Your task to perform on an android device: turn off priority inbox in the gmail app Image 0: 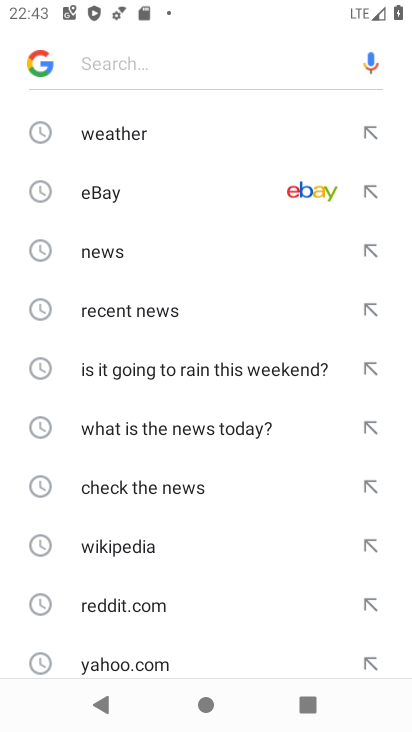
Step 0: drag from (272, 132) to (280, 75)
Your task to perform on an android device: turn off priority inbox in the gmail app Image 1: 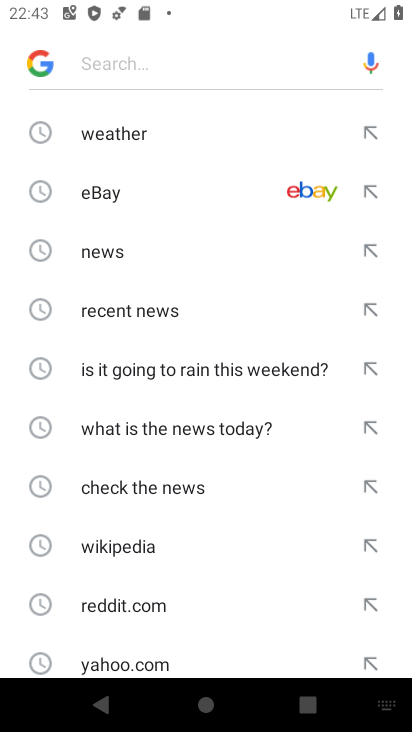
Step 1: press home button
Your task to perform on an android device: turn off priority inbox in the gmail app Image 2: 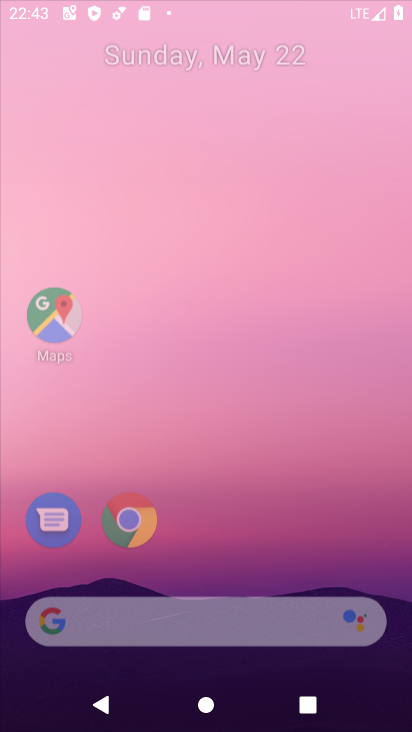
Step 2: drag from (258, 586) to (313, 82)
Your task to perform on an android device: turn off priority inbox in the gmail app Image 3: 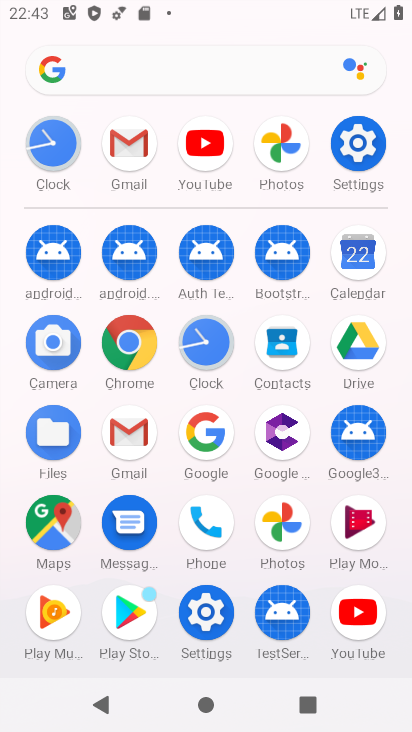
Step 3: click (115, 428)
Your task to perform on an android device: turn off priority inbox in the gmail app Image 4: 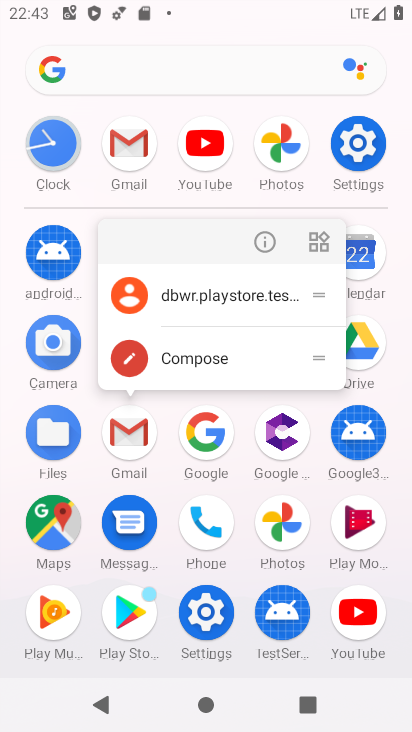
Step 4: click (271, 231)
Your task to perform on an android device: turn off priority inbox in the gmail app Image 5: 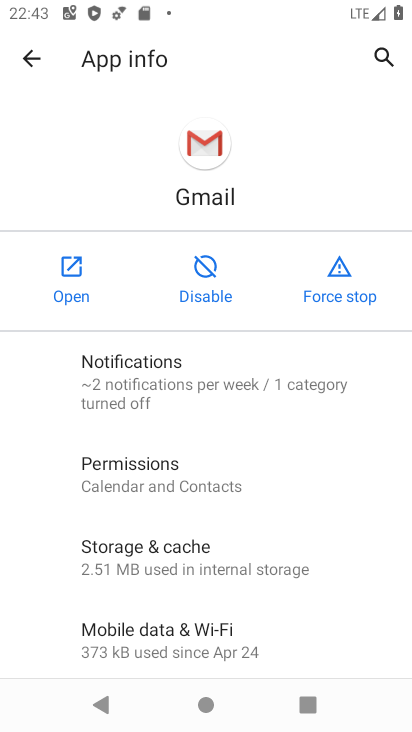
Step 5: click (61, 257)
Your task to perform on an android device: turn off priority inbox in the gmail app Image 6: 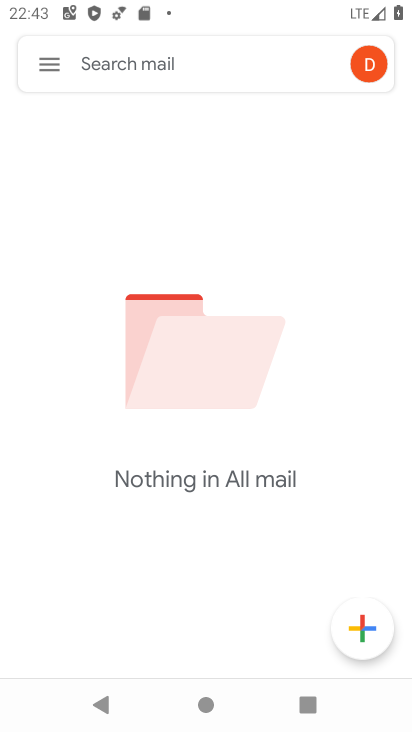
Step 6: click (370, 66)
Your task to perform on an android device: turn off priority inbox in the gmail app Image 7: 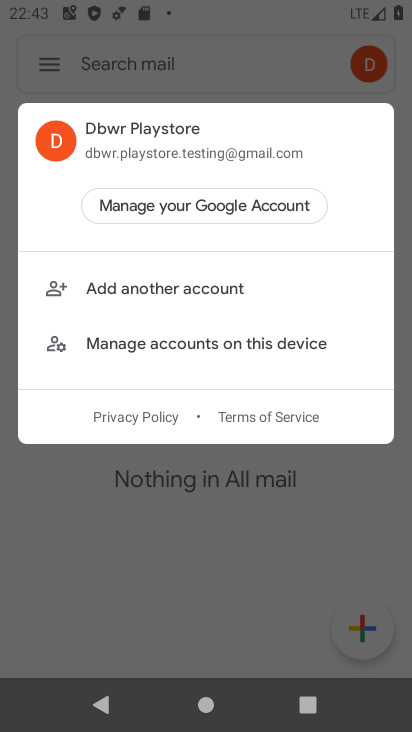
Step 7: click (215, 543)
Your task to perform on an android device: turn off priority inbox in the gmail app Image 8: 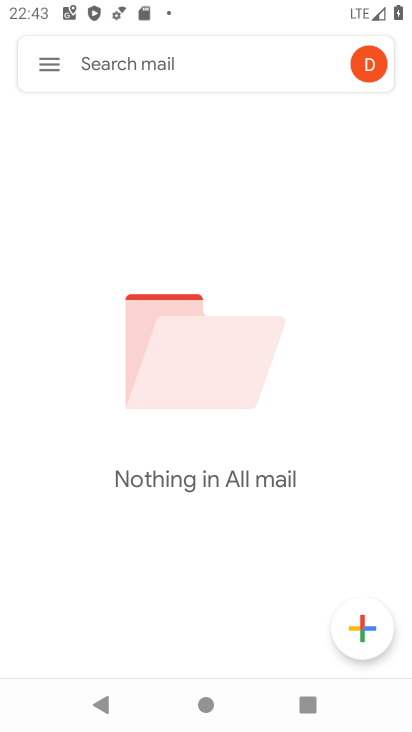
Step 8: click (60, 72)
Your task to perform on an android device: turn off priority inbox in the gmail app Image 9: 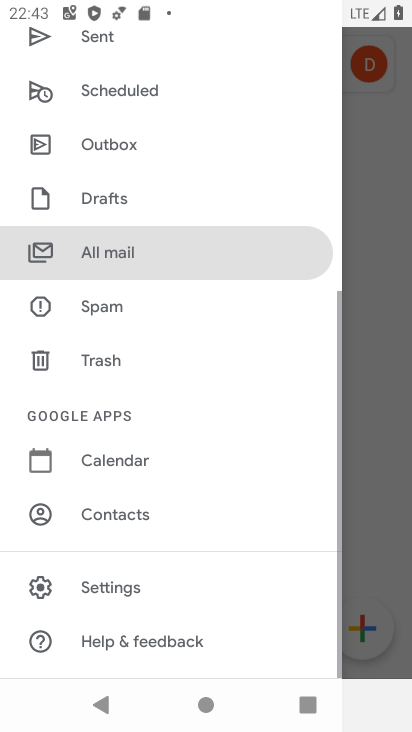
Step 9: drag from (210, 566) to (262, 92)
Your task to perform on an android device: turn off priority inbox in the gmail app Image 10: 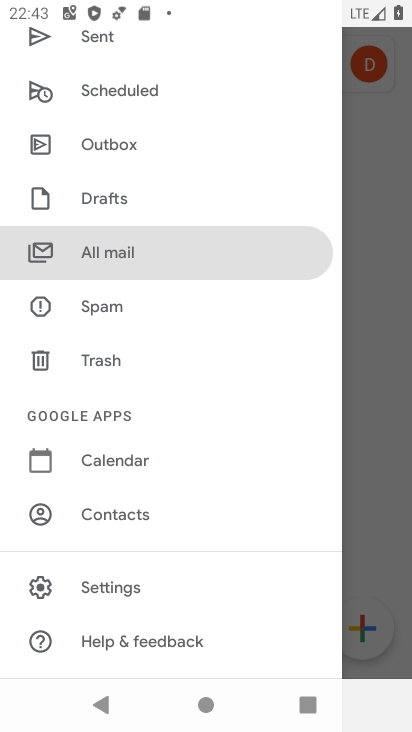
Step 10: click (113, 587)
Your task to perform on an android device: turn off priority inbox in the gmail app Image 11: 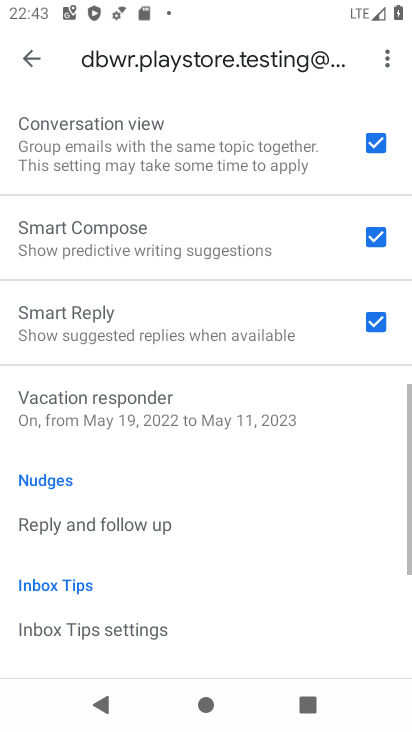
Step 11: drag from (108, 579) to (179, 147)
Your task to perform on an android device: turn off priority inbox in the gmail app Image 12: 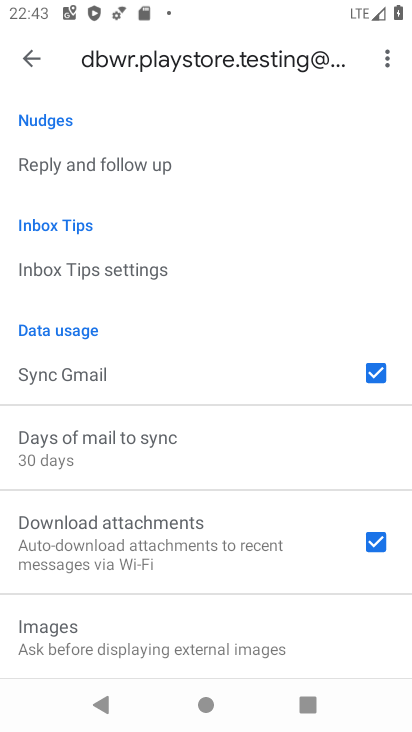
Step 12: drag from (184, 207) to (245, 676)
Your task to perform on an android device: turn off priority inbox in the gmail app Image 13: 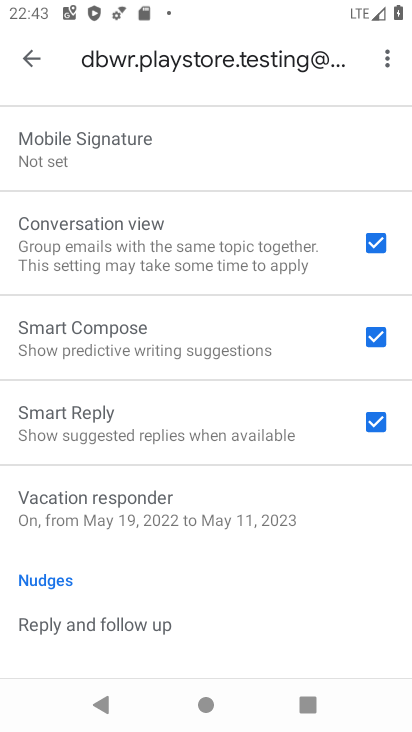
Step 13: drag from (222, 190) to (292, 616)
Your task to perform on an android device: turn off priority inbox in the gmail app Image 14: 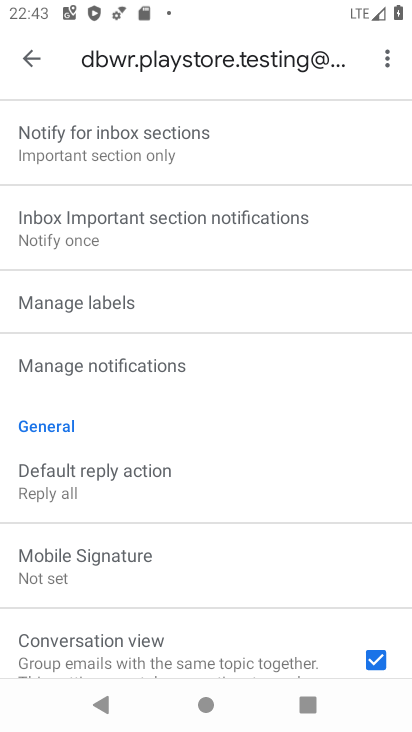
Step 14: drag from (158, 195) to (267, 659)
Your task to perform on an android device: turn off priority inbox in the gmail app Image 15: 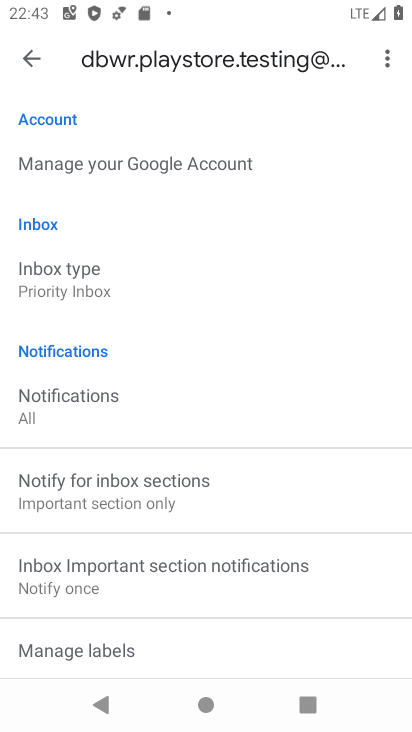
Step 15: click (80, 265)
Your task to perform on an android device: turn off priority inbox in the gmail app Image 16: 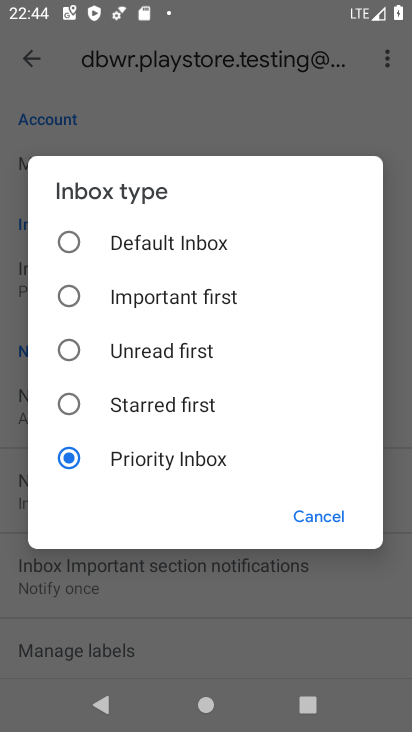
Step 16: click (105, 237)
Your task to perform on an android device: turn off priority inbox in the gmail app Image 17: 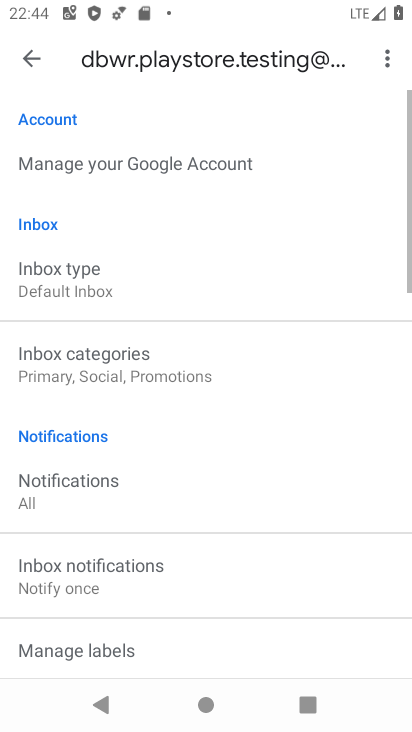
Step 17: task complete